Your task to perform on an android device: turn on location history Image 0: 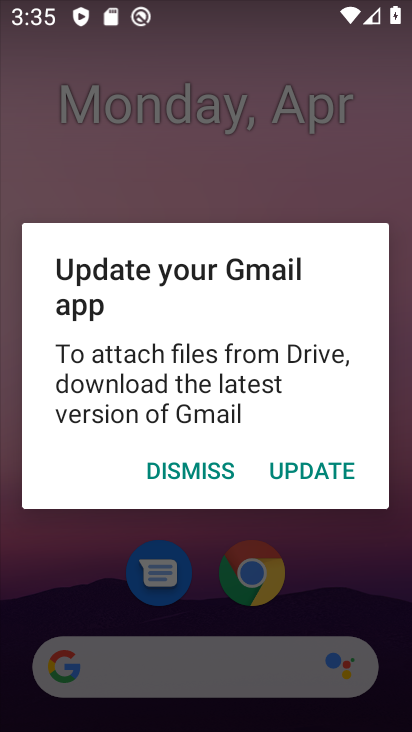
Step 0: press home button
Your task to perform on an android device: turn on location history Image 1: 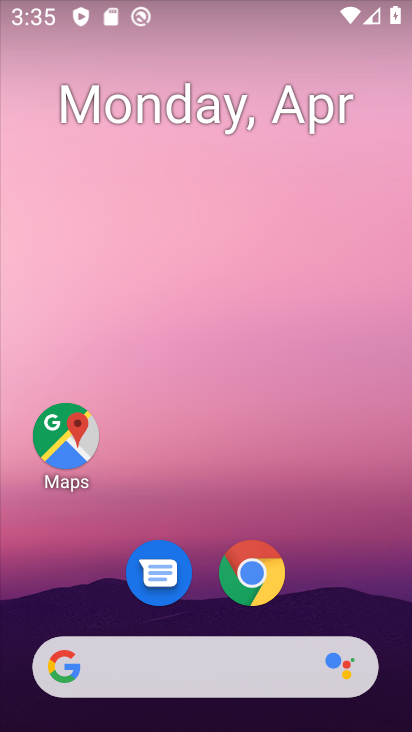
Step 1: drag from (359, 575) to (355, 122)
Your task to perform on an android device: turn on location history Image 2: 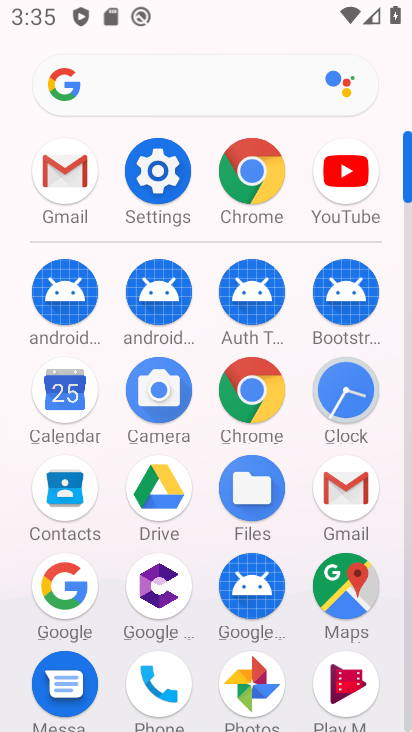
Step 2: click (162, 175)
Your task to perform on an android device: turn on location history Image 3: 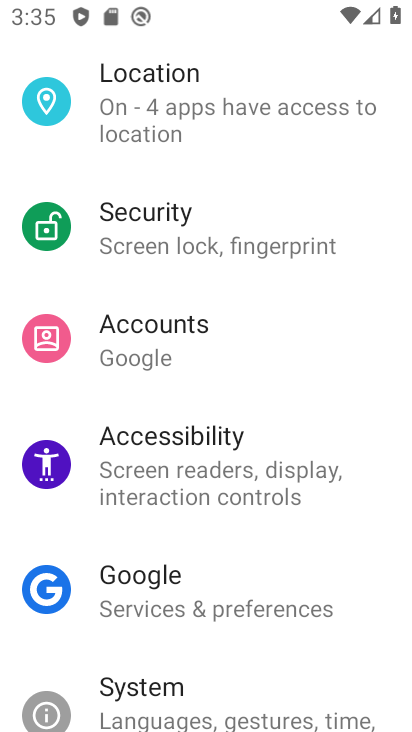
Step 3: drag from (360, 406) to (376, 532)
Your task to perform on an android device: turn on location history Image 4: 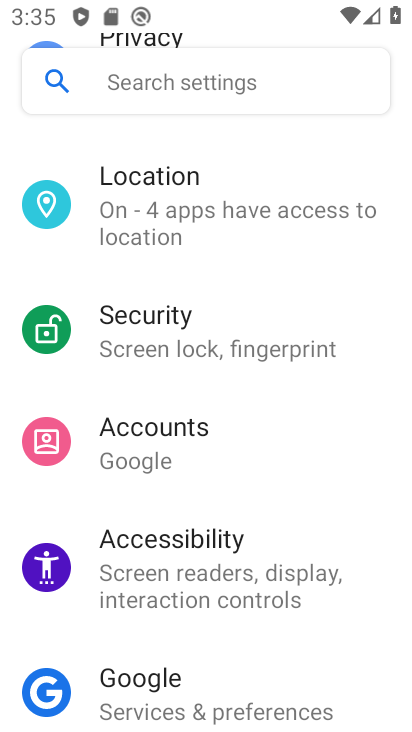
Step 4: drag from (363, 475) to (364, 541)
Your task to perform on an android device: turn on location history Image 5: 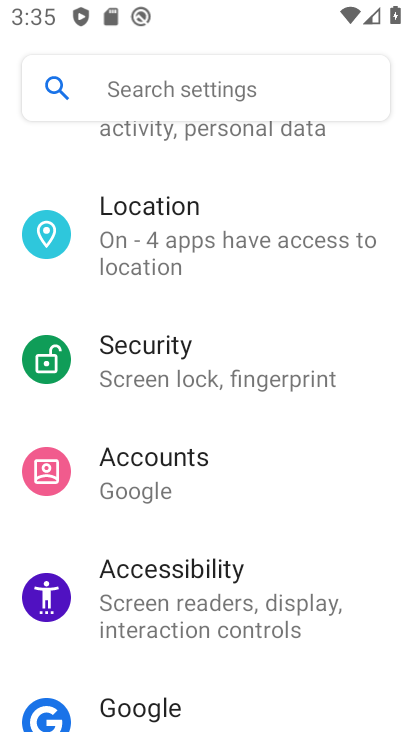
Step 5: drag from (368, 345) to (367, 573)
Your task to perform on an android device: turn on location history Image 6: 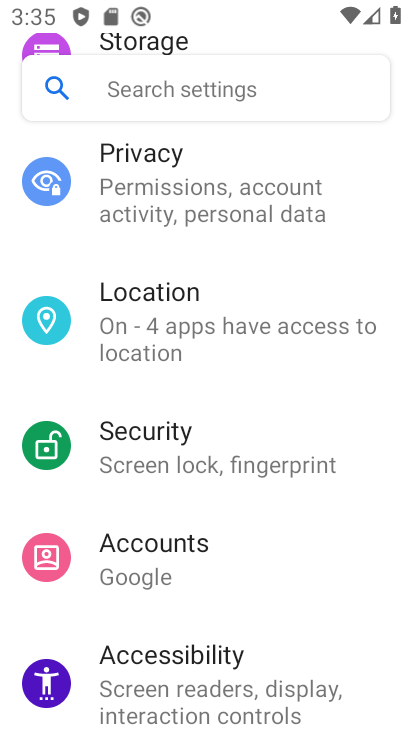
Step 6: drag from (357, 409) to (353, 598)
Your task to perform on an android device: turn on location history Image 7: 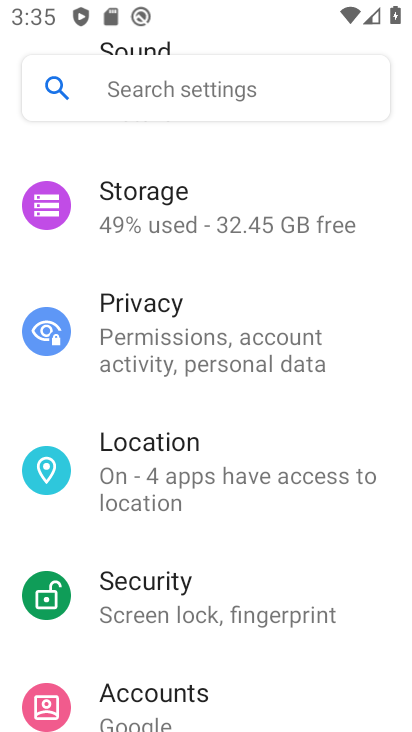
Step 7: click (208, 474)
Your task to perform on an android device: turn on location history Image 8: 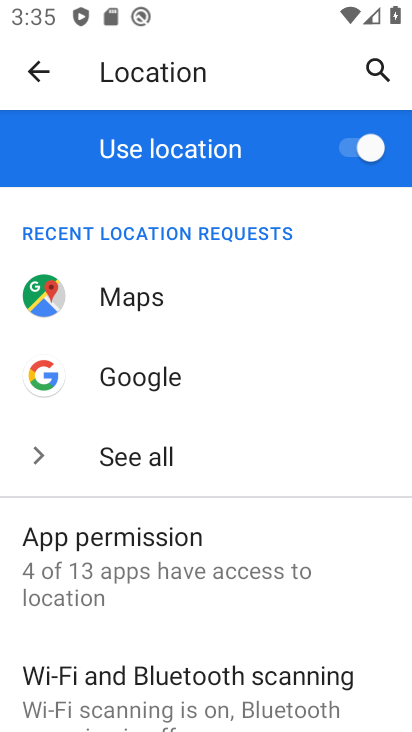
Step 8: drag from (324, 603) to (333, 261)
Your task to perform on an android device: turn on location history Image 9: 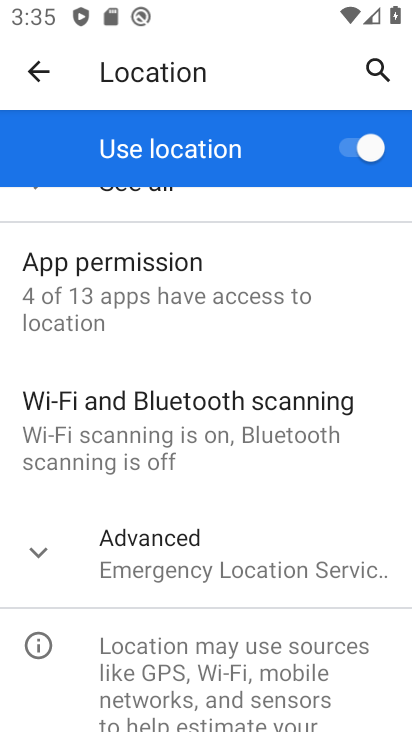
Step 9: click (291, 563)
Your task to perform on an android device: turn on location history Image 10: 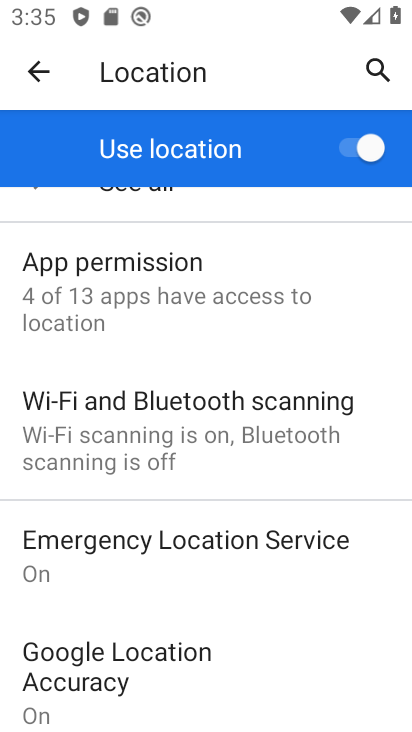
Step 10: drag from (293, 640) to (303, 353)
Your task to perform on an android device: turn on location history Image 11: 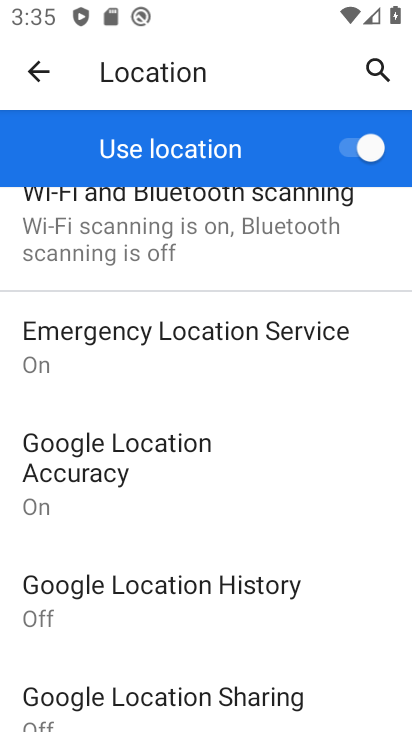
Step 11: drag from (354, 606) to (350, 457)
Your task to perform on an android device: turn on location history Image 12: 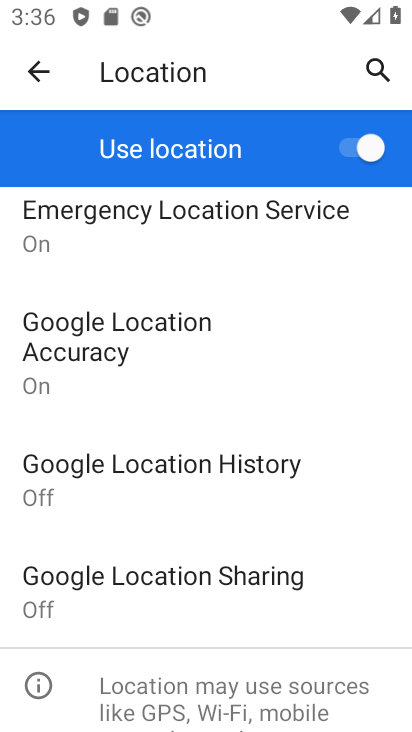
Step 12: click (263, 480)
Your task to perform on an android device: turn on location history Image 13: 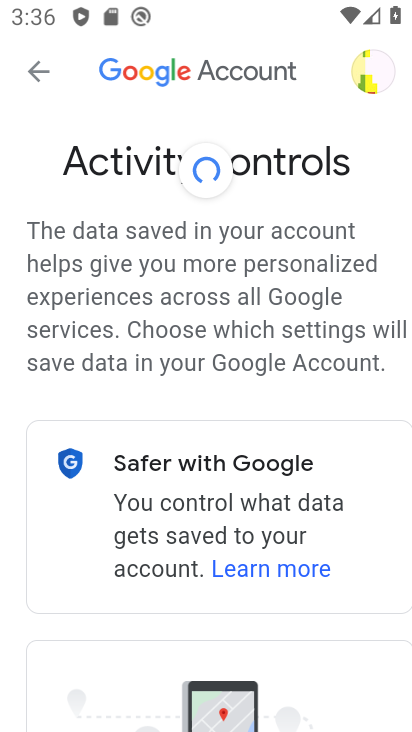
Step 13: drag from (318, 590) to (320, 400)
Your task to perform on an android device: turn on location history Image 14: 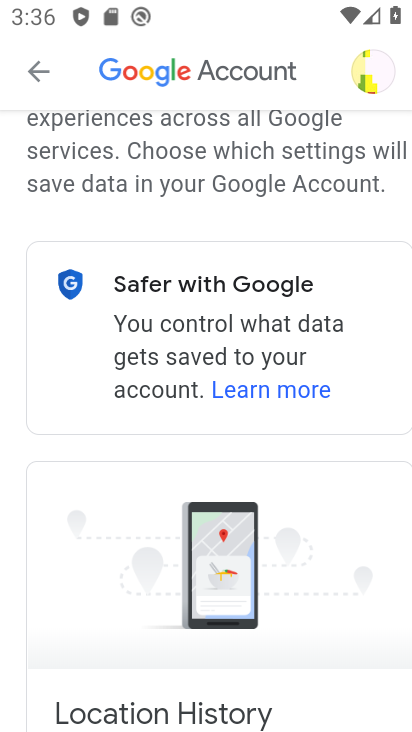
Step 14: drag from (311, 574) to (315, 401)
Your task to perform on an android device: turn on location history Image 15: 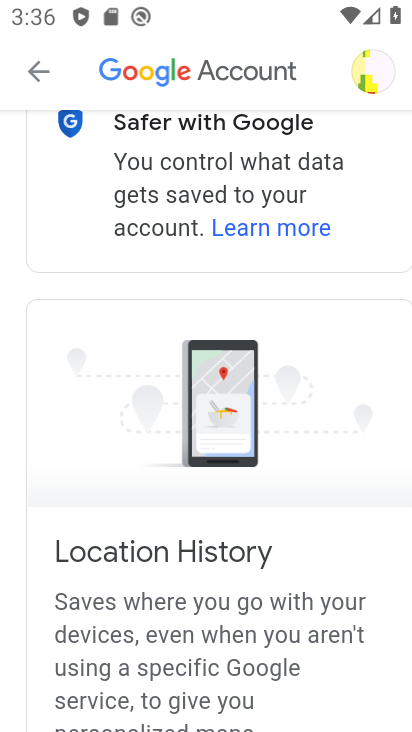
Step 15: drag from (321, 657) to (334, 399)
Your task to perform on an android device: turn on location history Image 16: 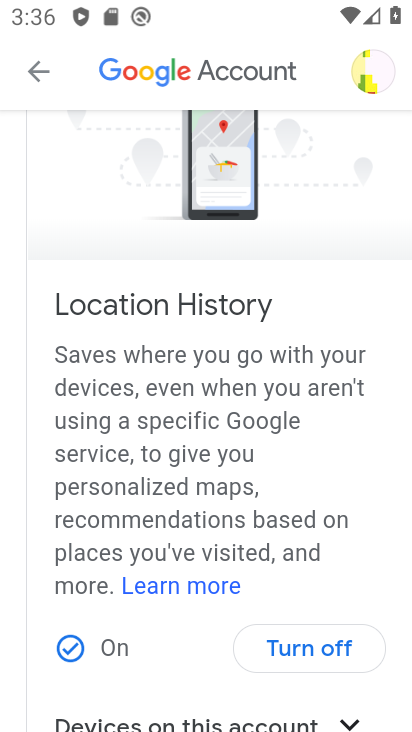
Step 16: click (120, 643)
Your task to perform on an android device: turn on location history Image 17: 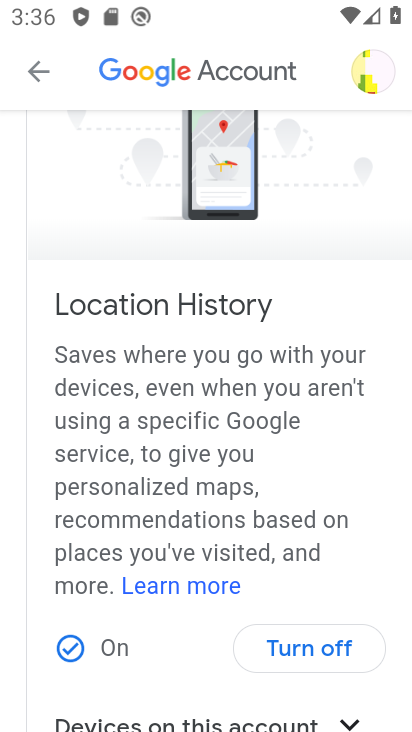
Step 17: task complete